Your task to perform on an android device: Open wifi settings Image 0: 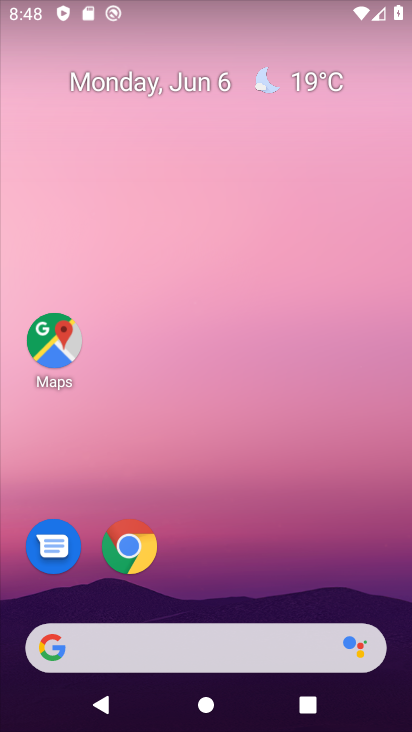
Step 0: drag from (160, 622) to (329, 35)
Your task to perform on an android device: Open wifi settings Image 1: 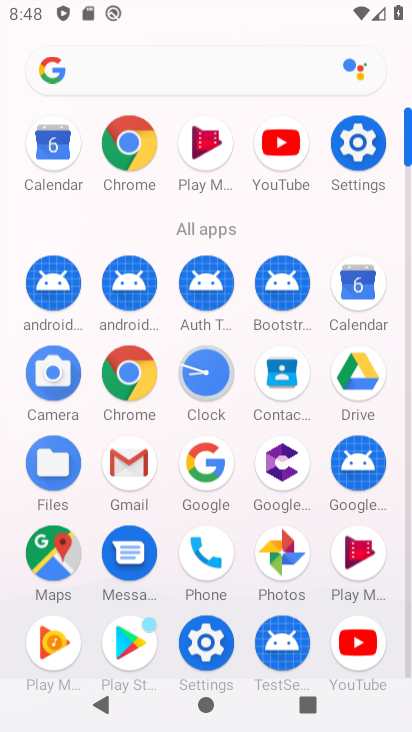
Step 1: click (338, 158)
Your task to perform on an android device: Open wifi settings Image 2: 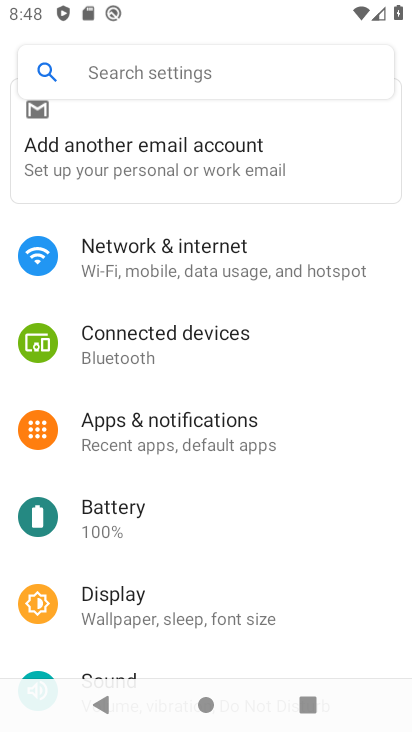
Step 2: click (157, 262)
Your task to perform on an android device: Open wifi settings Image 3: 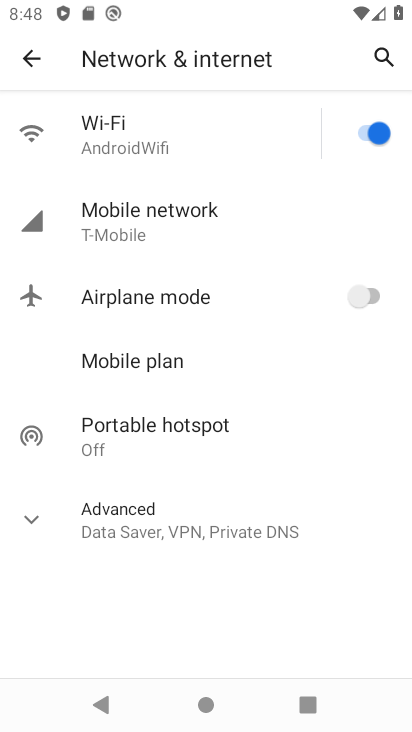
Step 3: click (156, 160)
Your task to perform on an android device: Open wifi settings Image 4: 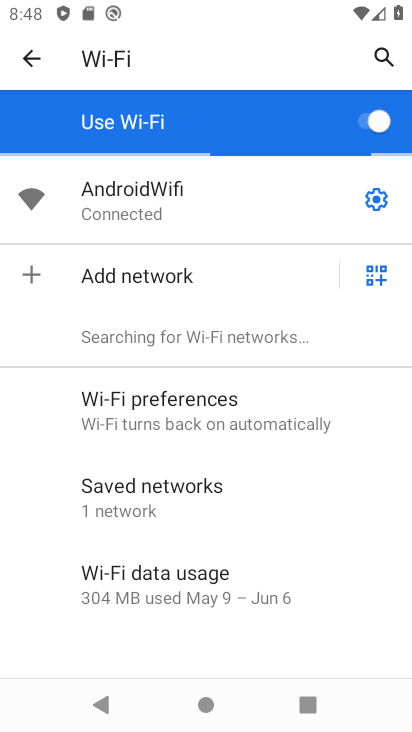
Step 4: task complete